Your task to perform on an android device: Open location settings Image 0: 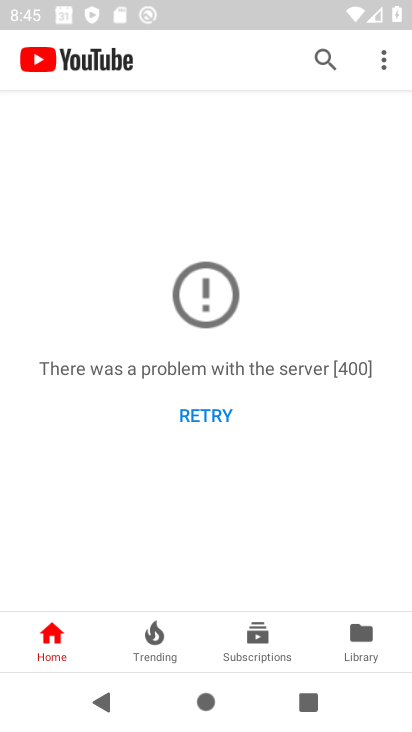
Step 0: press back button
Your task to perform on an android device: Open location settings Image 1: 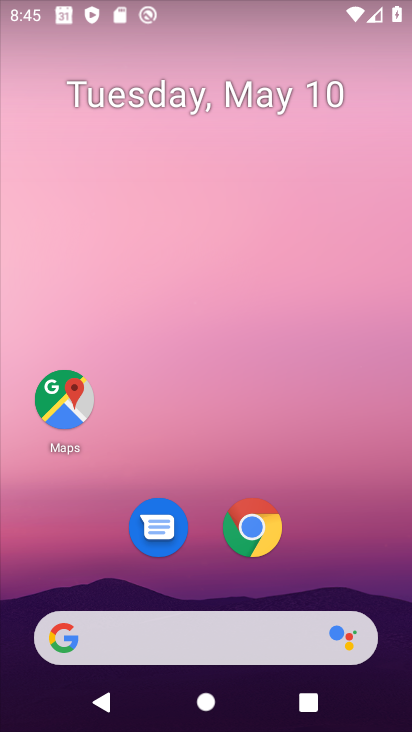
Step 1: drag from (146, 602) to (259, 76)
Your task to perform on an android device: Open location settings Image 2: 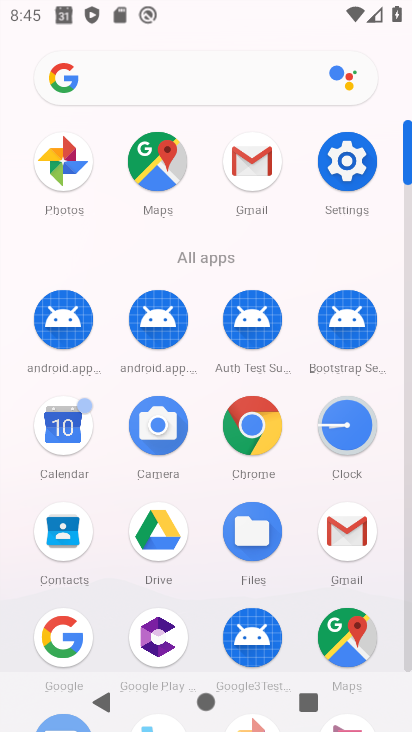
Step 2: drag from (213, 638) to (262, 334)
Your task to perform on an android device: Open location settings Image 3: 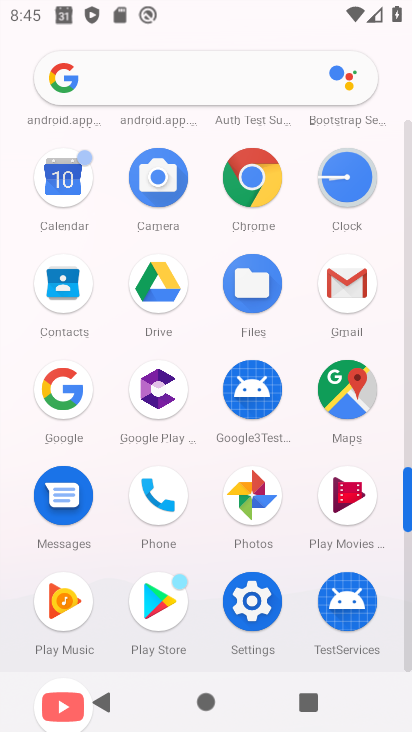
Step 3: click (260, 616)
Your task to perform on an android device: Open location settings Image 4: 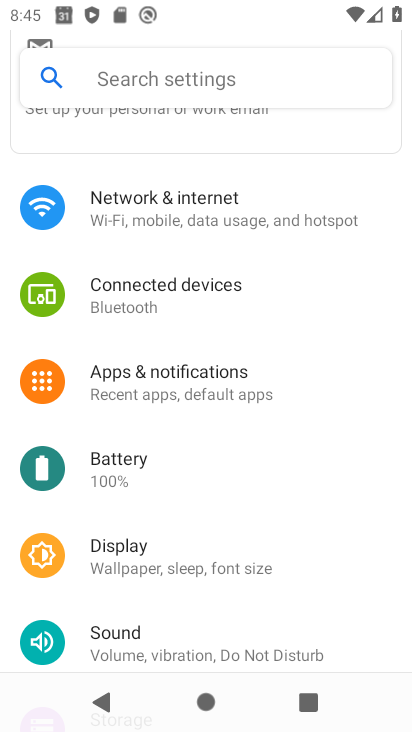
Step 4: drag from (179, 591) to (286, 195)
Your task to perform on an android device: Open location settings Image 5: 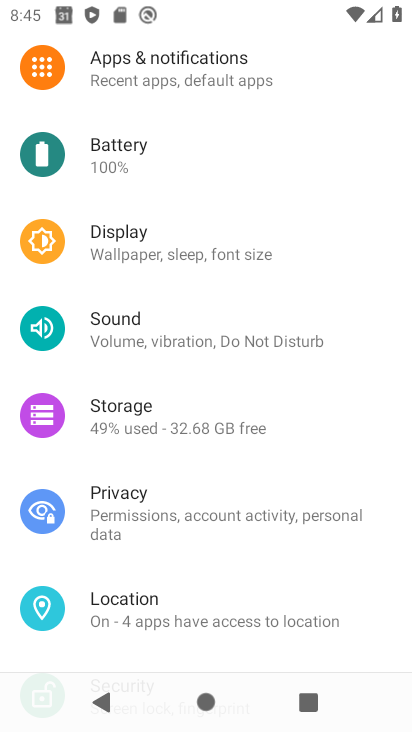
Step 5: click (184, 602)
Your task to perform on an android device: Open location settings Image 6: 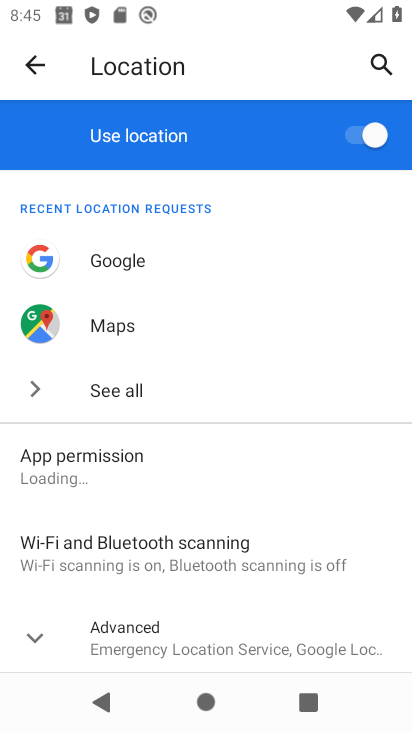
Step 6: task complete